Your task to perform on an android device: open sync settings in chrome Image 0: 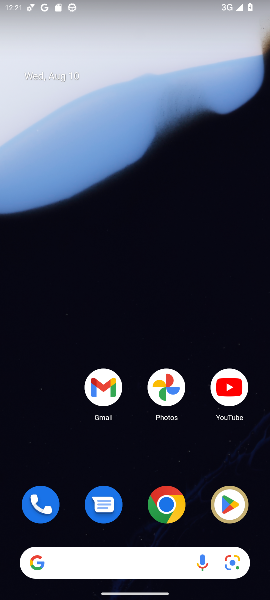
Step 0: press home button
Your task to perform on an android device: open sync settings in chrome Image 1: 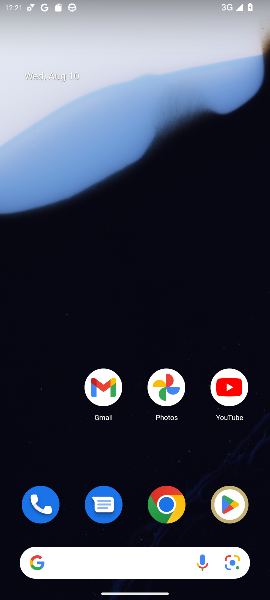
Step 1: click (165, 505)
Your task to perform on an android device: open sync settings in chrome Image 2: 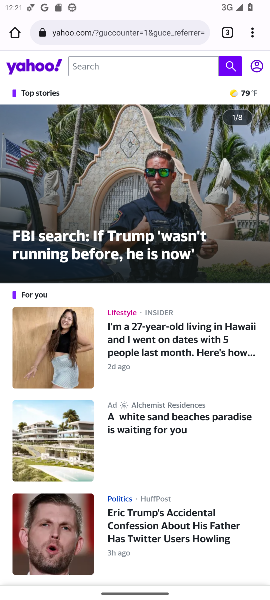
Step 2: drag from (250, 33) to (152, 419)
Your task to perform on an android device: open sync settings in chrome Image 3: 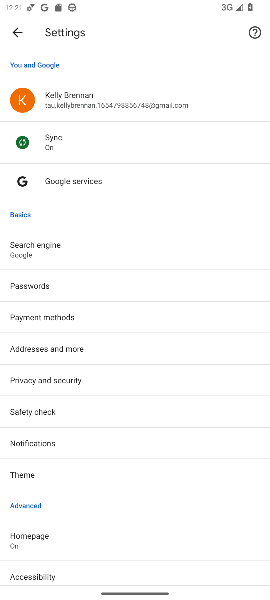
Step 3: click (59, 144)
Your task to perform on an android device: open sync settings in chrome Image 4: 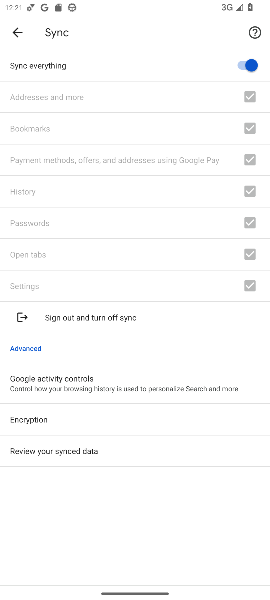
Step 4: task complete